Your task to perform on an android device: turn on improve location accuracy Image 0: 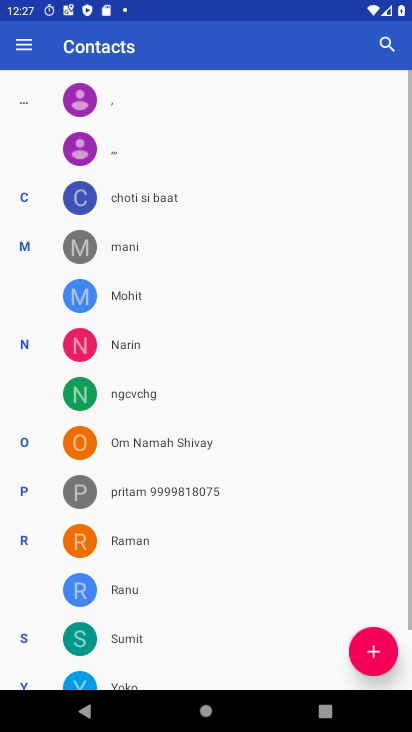
Step 0: press home button
Your task to perform on an android device: turn on improve location accuracy Image 1: 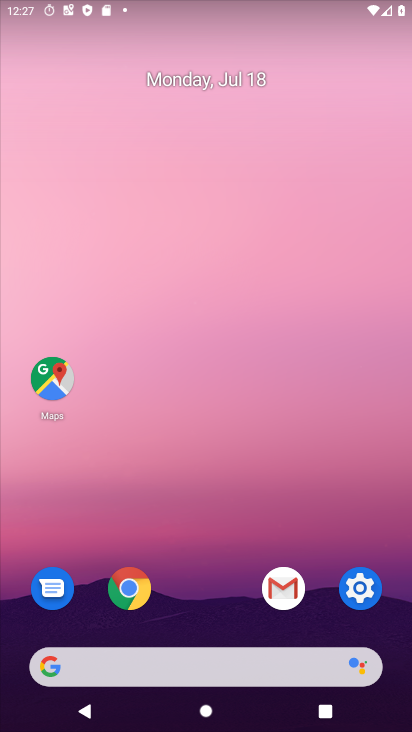
Step 1: click (351, 593)
Your task to perform on an android device: turn on improve location accuracy Image 2: 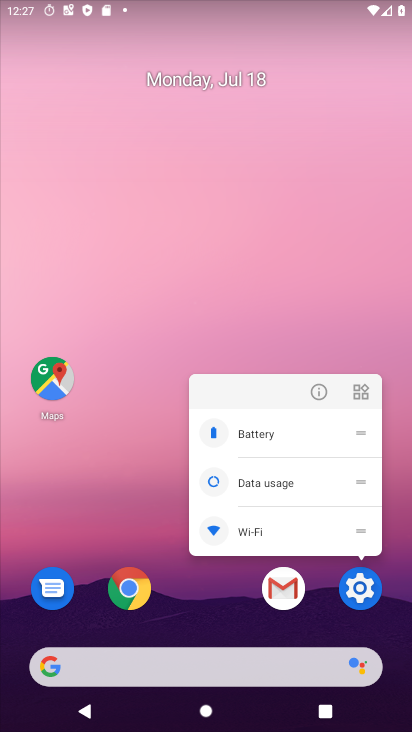
Step 2: click (352, 599)
Your task to perform on an android device: turn on improve location accuracy Image 3: 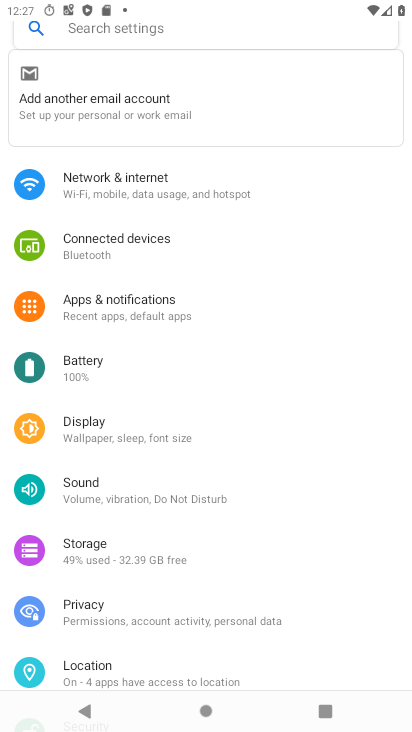
Step 3: click (90, 668)
Your task to perform on an android device: turn on improve location accuracy Image 4: 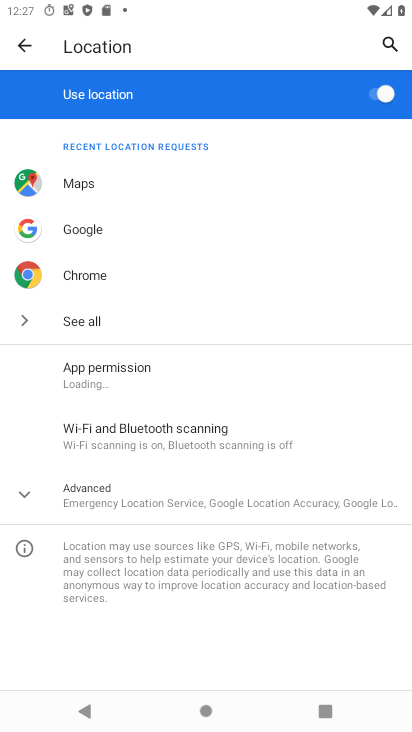
Step 4: click (30, 480)
Your task to perform on an android device: turn on improve location accuracy Image 5: 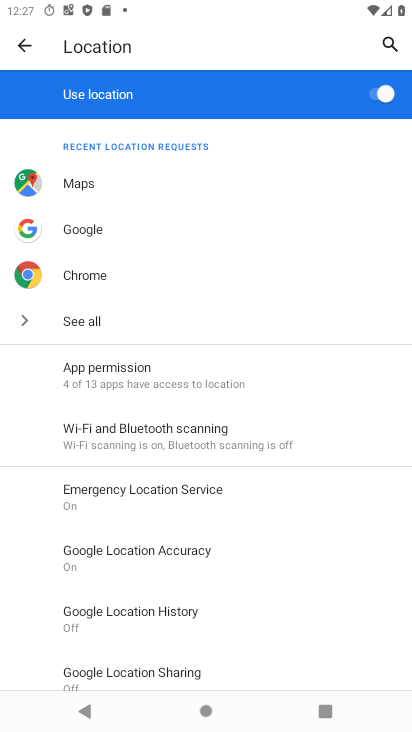
Step 5: click (136, 561)
Your task to perform on an android device: turn on improve location accuracy Image 6: 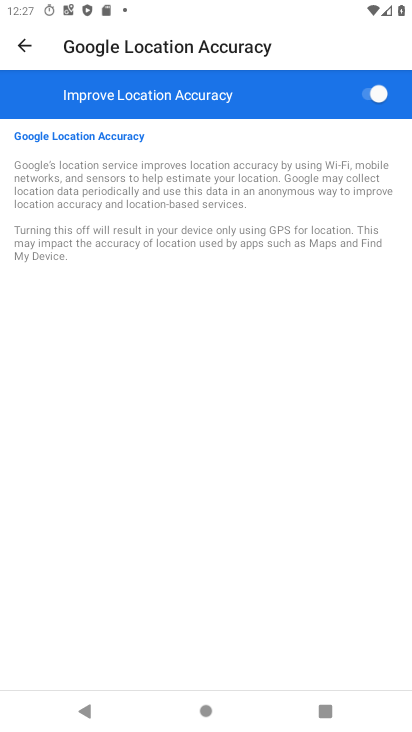
Step 6: click (369, 107)
Your task to perform on an android device: turn on improve location accuracy Image 7: 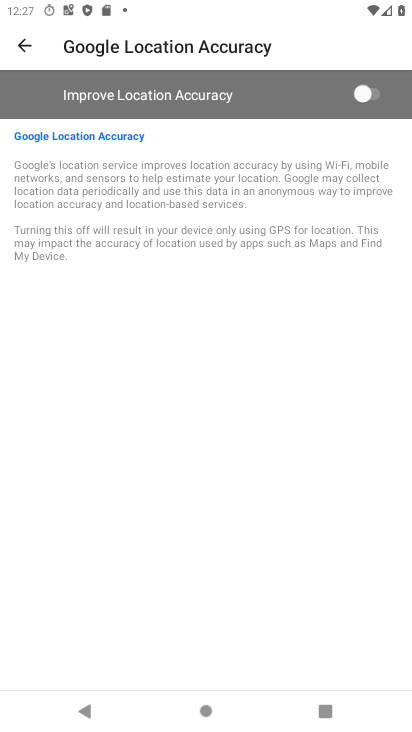
Step 7: click (369, 107)
Your task to perform on an android device: turn on improve location accuracy Image 8: 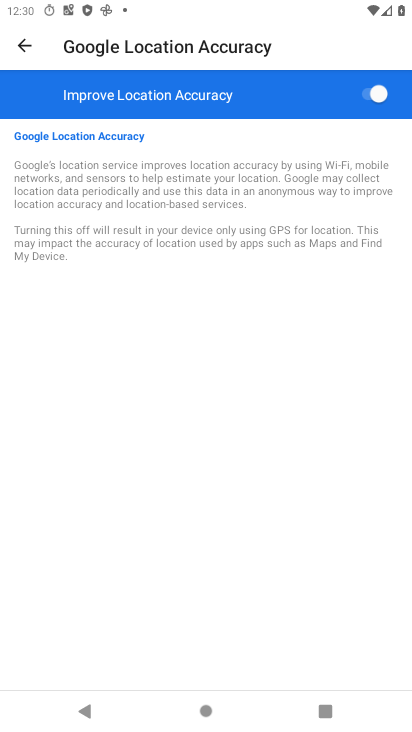
Step 8: task complete